Your task to perform on an android device: Search for vegetarian restaurants on Maps Image 0: 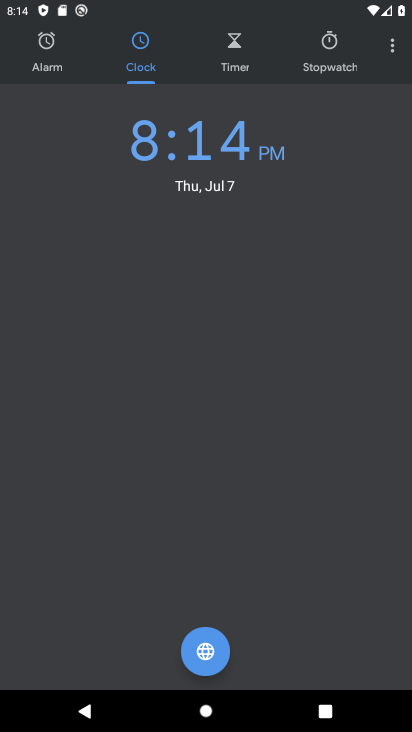
Step 0: press home button
Your task to perform on an android device: Search for vegetarian restaurants on Maps Image 1: 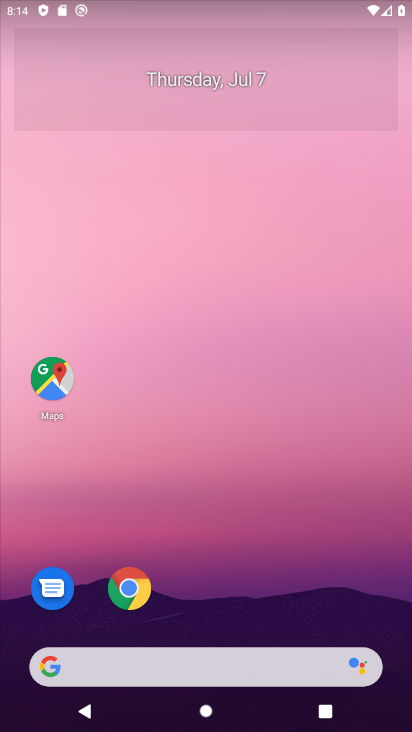
Step 1: click (57, 383)
Your task to perform on an android device: Search for vegetarian restaurants on Maps Image 2: 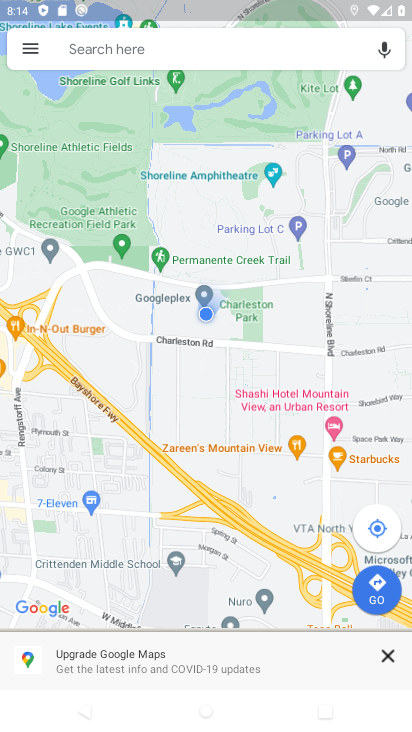
Step 2: click (141, 46)
Your task to perform on an android device: Search for vegetarian restaurants on Maps Image 3: 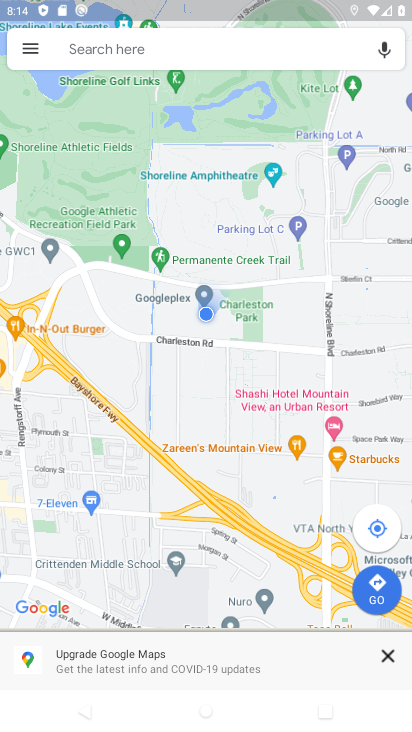
Step 3: click (76, 46)
Your task to perform on an android device: Search for vegetarian restaurants on Maps Image 4: 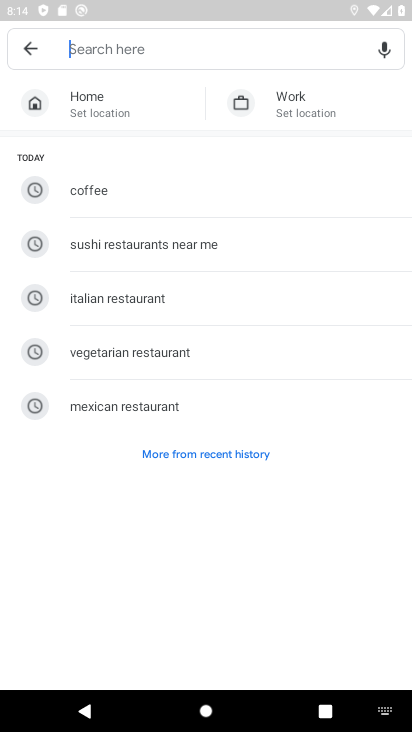
Step 4: click (147, 348)
Your task to perform on an android device: Search for vegetarian restaurants on Maps Image 5: 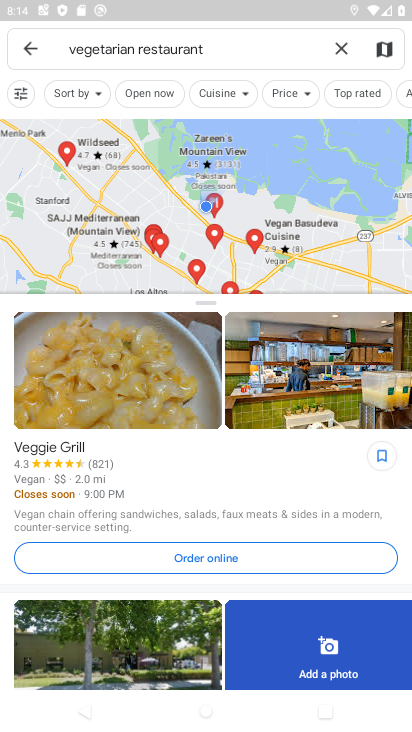
Step 5: task complete